Your task to perform on an android device: Go to internet settings Image 0: 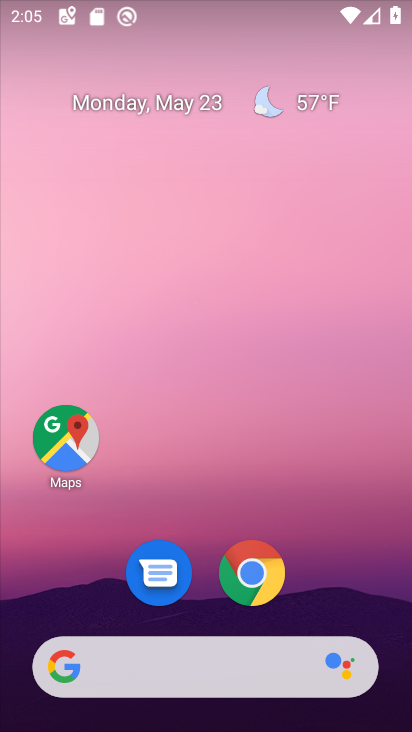
Step 0: drag from (315, 606) to (328, 169)
Your task to perform on an android device: Go to internet settings Image 1: 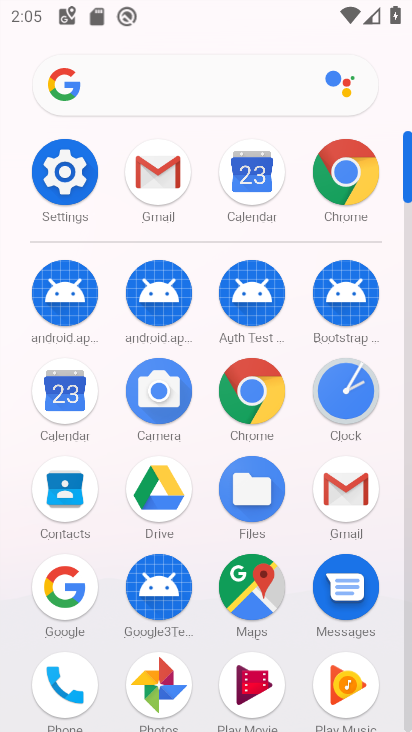
Step 1: click (52, 167)
Your task to perform on an android device: Go to internet settings Image 2: 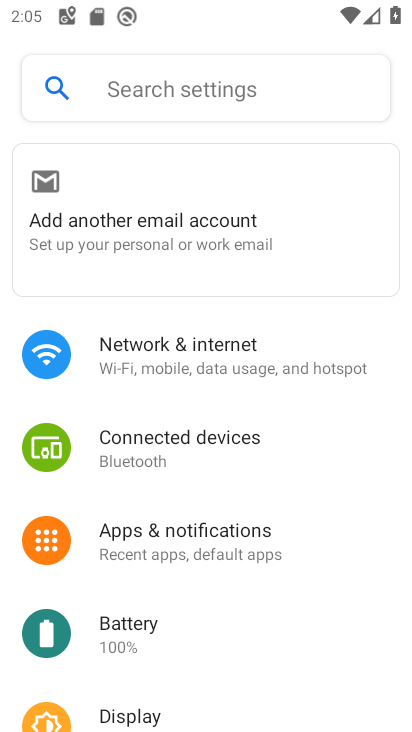
Step 2: click (194, 344)
Your task to perform on an android device: Go to internet settings Image 3: 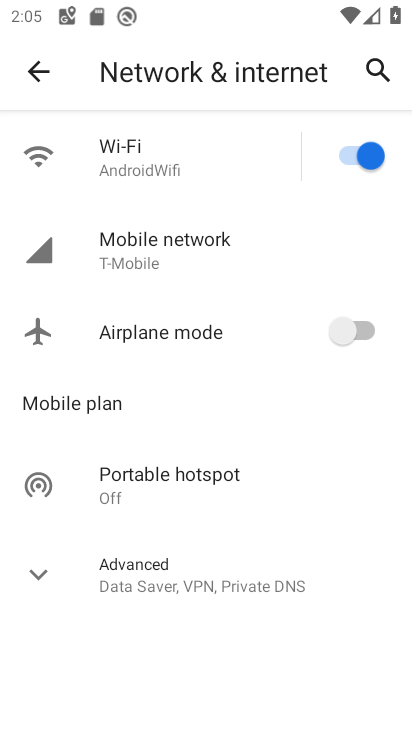
Step 3: task complete